Your task to perform on an android device: add a contact Image 0: 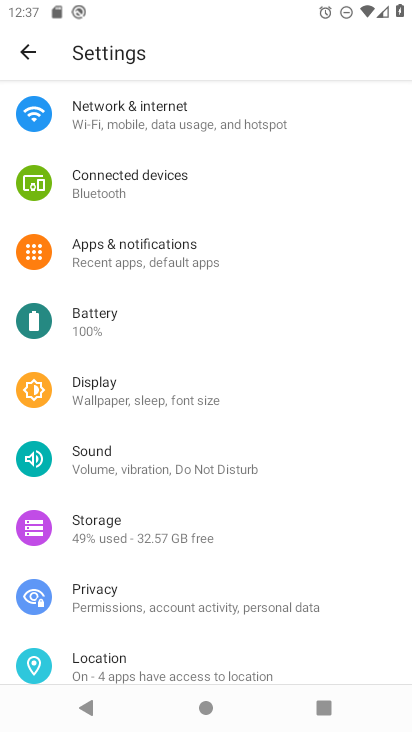
Step 0: press home button
Your task to perform on an android device: add a contact Image 1: 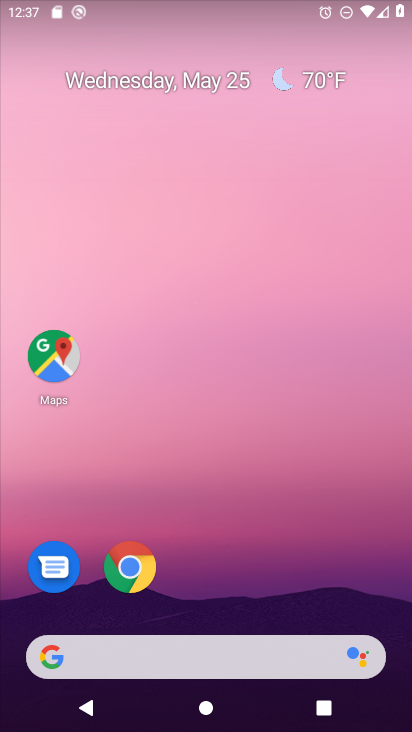
Step 1: drag from (398, 655) to (397, 244)
Your task to perform on an android device: add a contact Image 2: 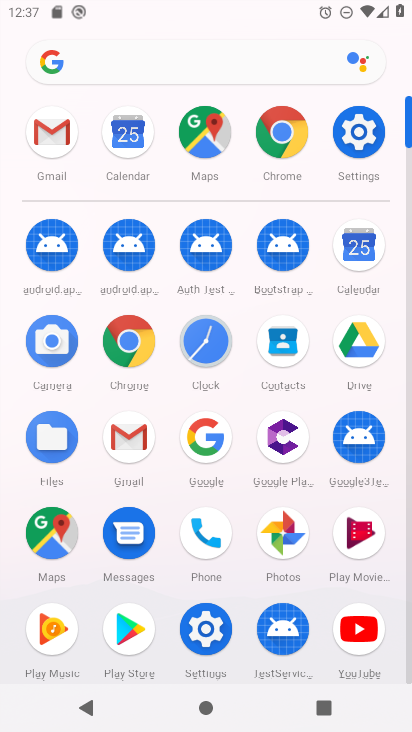
Step 2: click (284, 351)
Your task to perform on an android device: add a contact Image 3: 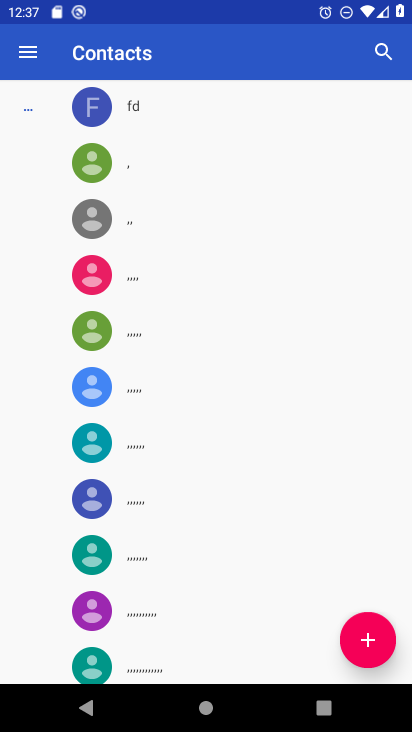
Step 3: click (363, 640)
Your task to perform on an android device: add a contact Image 4: 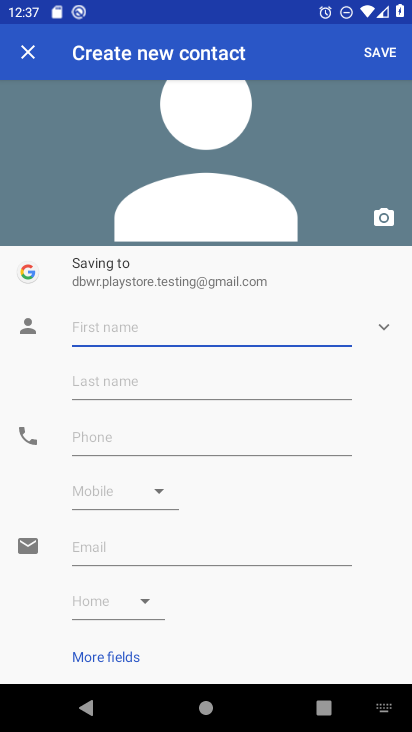
Step 4: click (136, 321)
Your task to perform on an android device: add a contact Image 5: 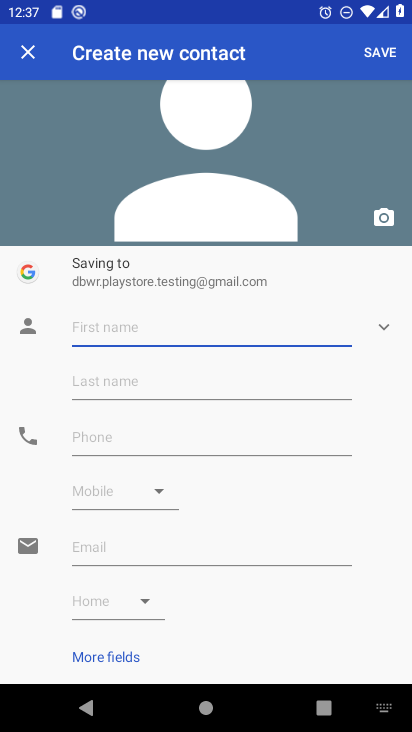
Step 5: type "bsdhbhsbvh"
Your task to perform on an android device: add a contact Image 6: 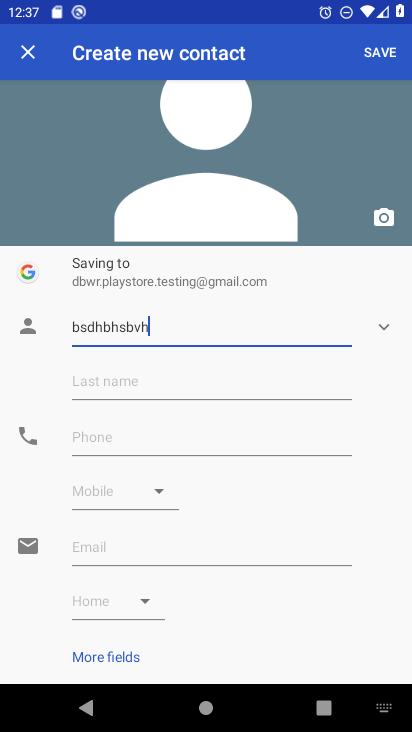
Step 6: click (110, 388)
Your task to perform on an android device: add a contact Image 7: 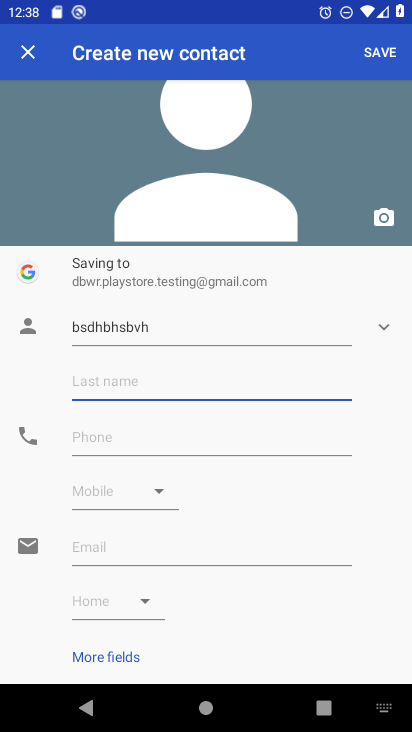
Step 7: type "uurcnjcjmc"
Your task to perform on an android device: add a contact Image 8: 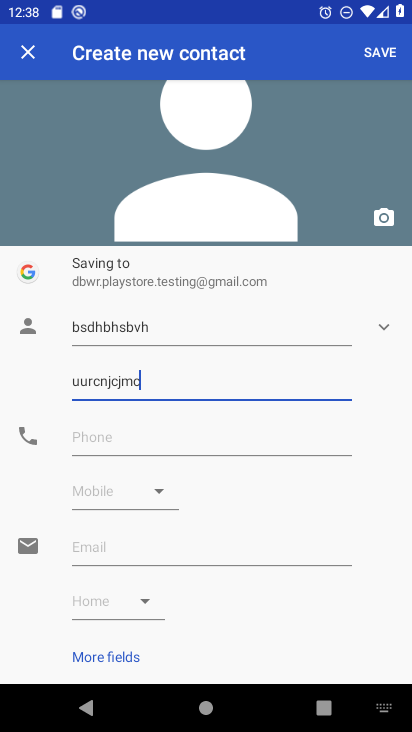
Step 8: click (191, 444)
Your task to perform on an android device: add a contact Image 9: 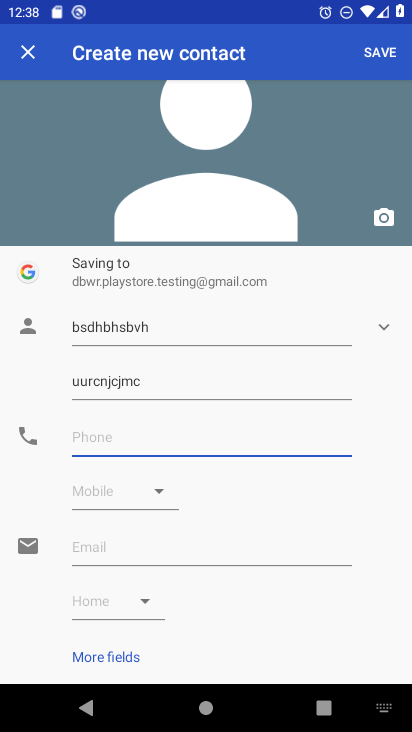
Step 9: type "7547746467457"
Your task to perform on an android device: add a contact Image 10: 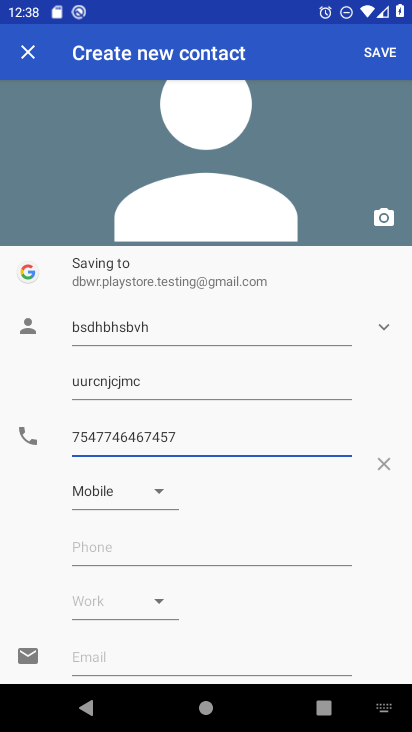
Step 10: click (388, 54)
Your task to perform on an android device: add a contact Image 11: 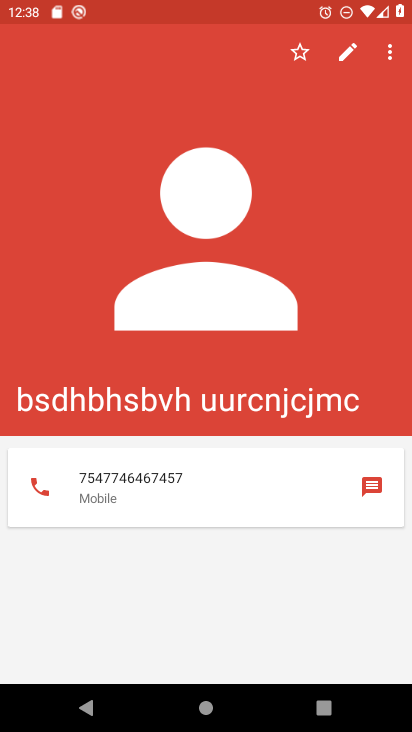
Step 11: task complete